Your task to perform on an android device: uninstall "Google Play Games" Image 0: 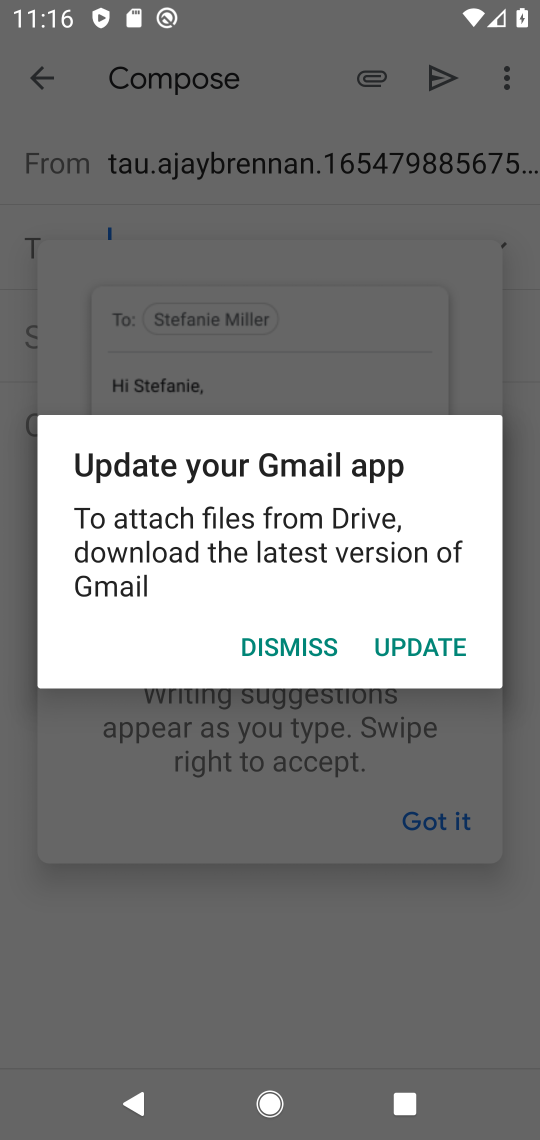
Step 0: click (260, 668)
Your task to perform on an android device: uninstall "Google Play Games" Image 1: 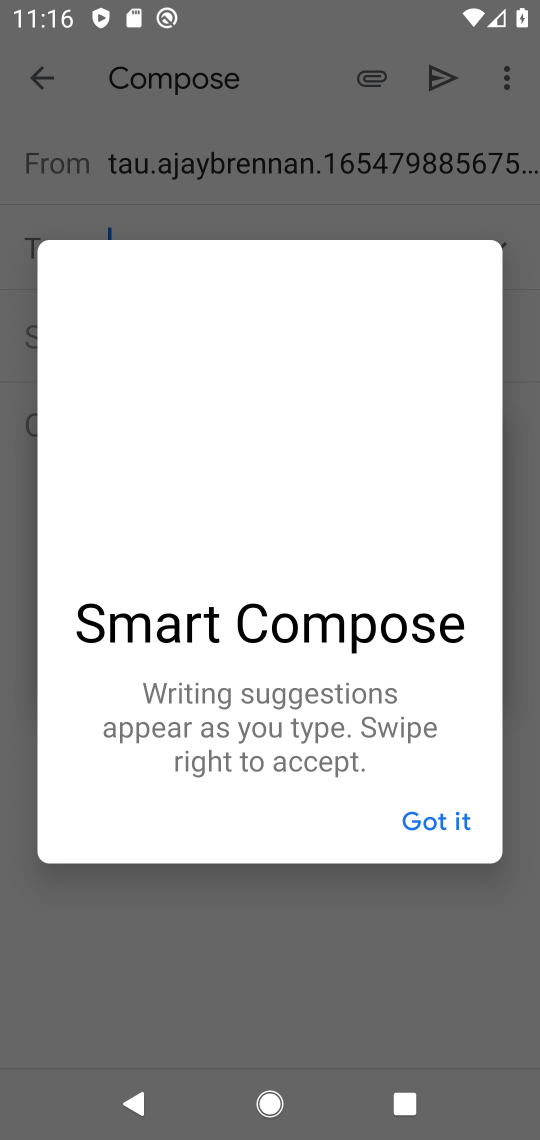
Step 1: click (436, 834)
Your task to perform on an android device: uninstall "Google Play Games" Image 2: 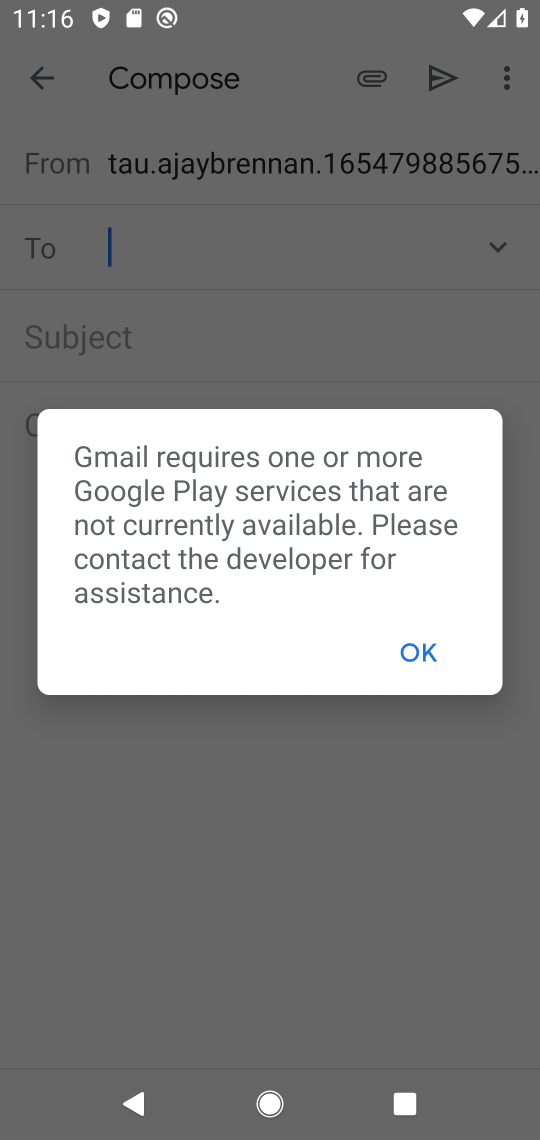
Step 2: press home button
Your task to perform on an android device: uninstall "Google Play Games" Image 3: 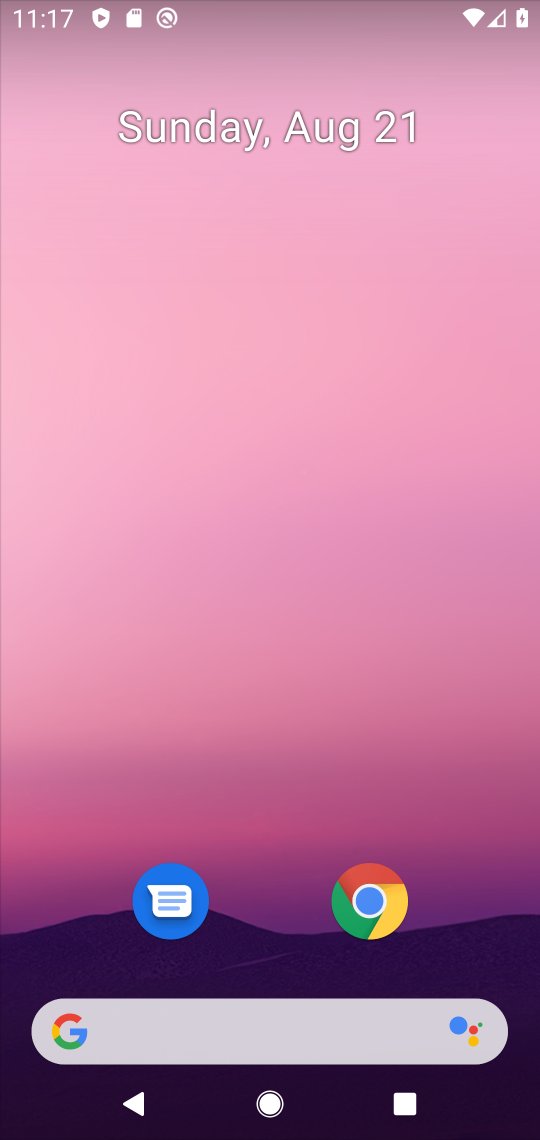
Step 3: drag from (278, 964) to (319, 139)
Your task to perform on an android device: uninstall "Google Play Games" Image 4: 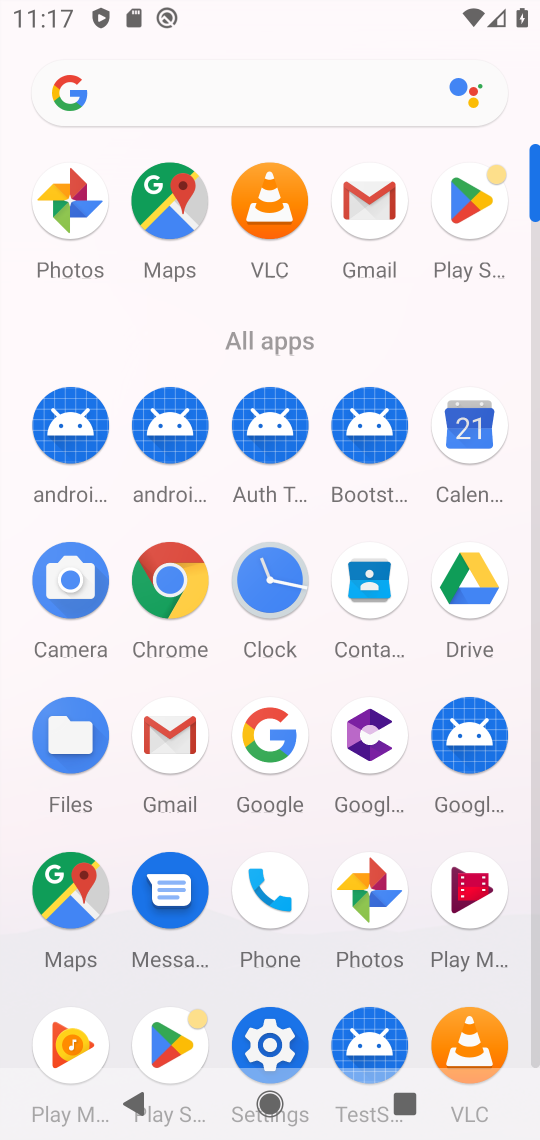
Step 4: click (455, 201)
Your task to perform on an android device: uninstall "Google Play Games" Image 5: 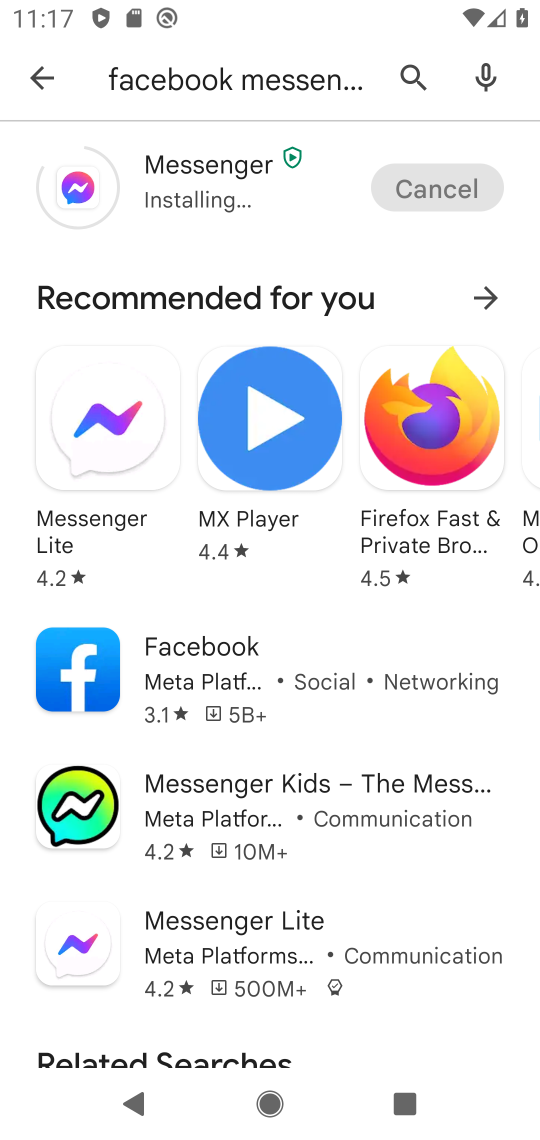
Step 5: click (399, 93)
Your task to perform on an android device: uninstall "Google Play Games" Image 6: 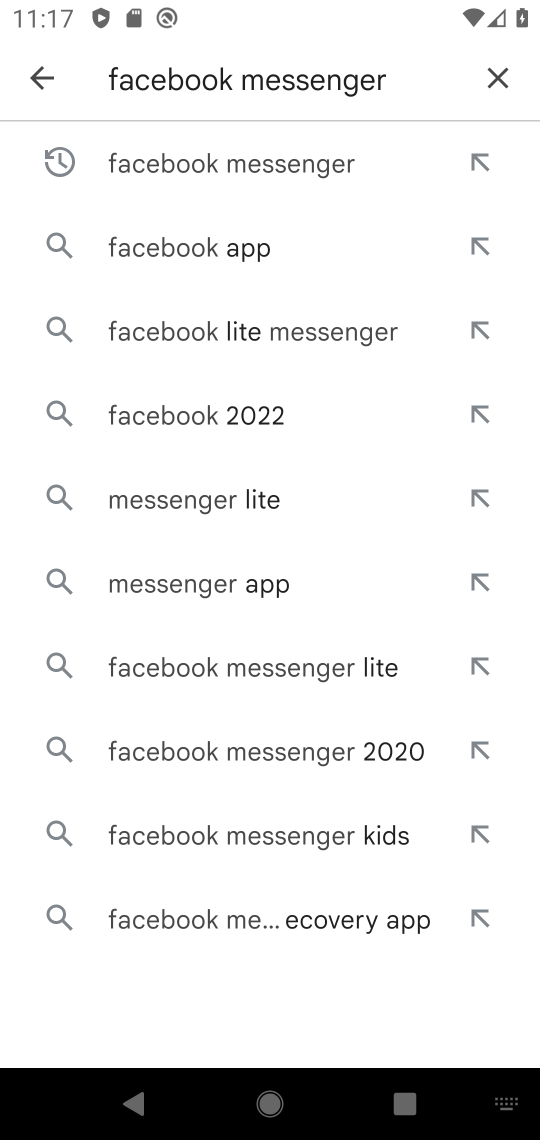
Step 6: click (482, 79)
Your task to perform on an android device: uninstall "Google Play Games" Image 7: 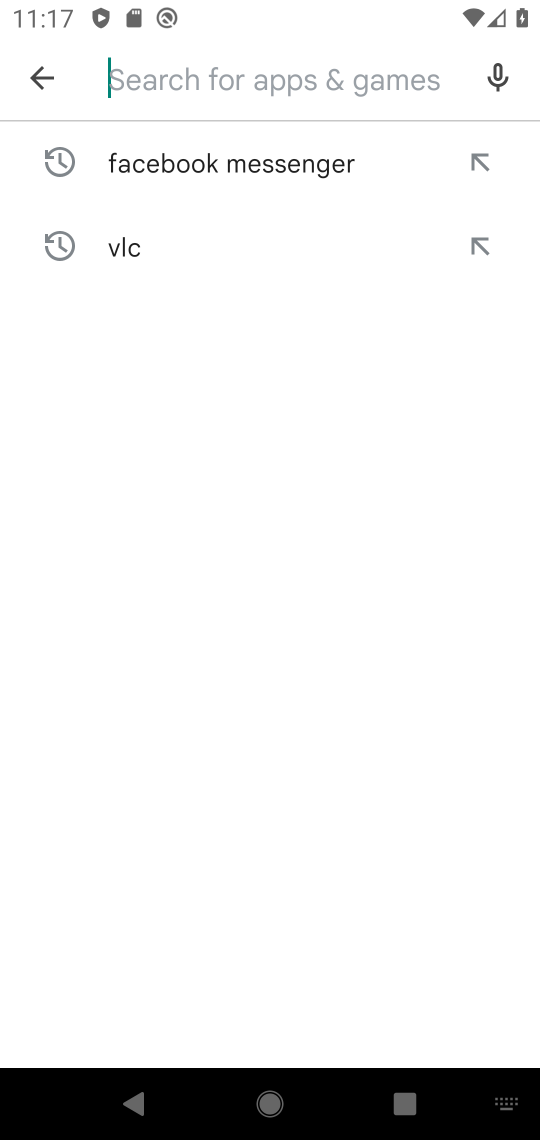
Step 7: type "goolge play"
Your task to perform on an android device: uninstall "Google Play Games" Image 8: 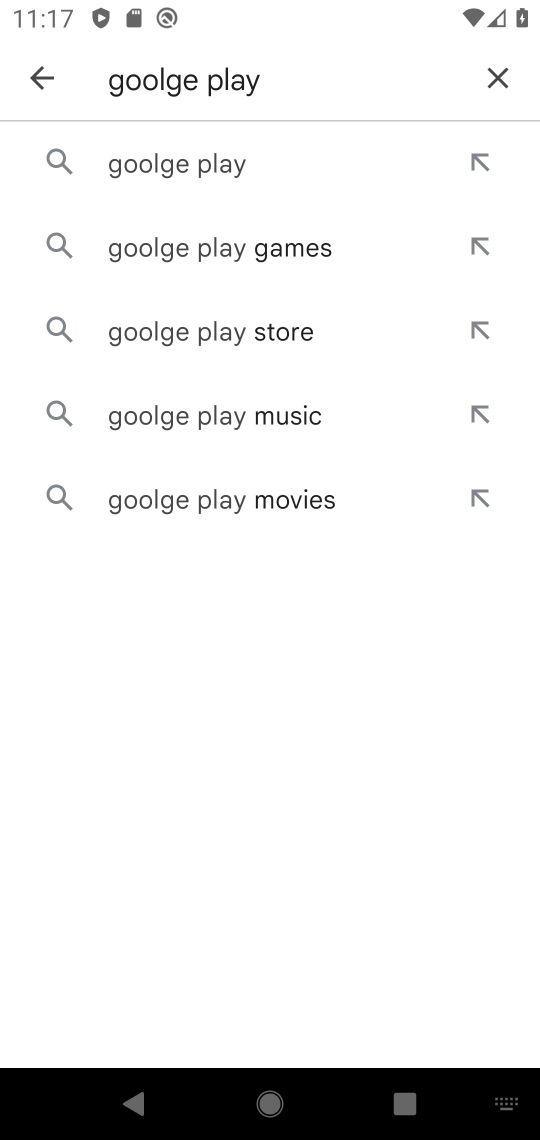
Step 8: click (214, 148)
Your task to perform on an android device: uninstall "Google Play Games" Image 9: 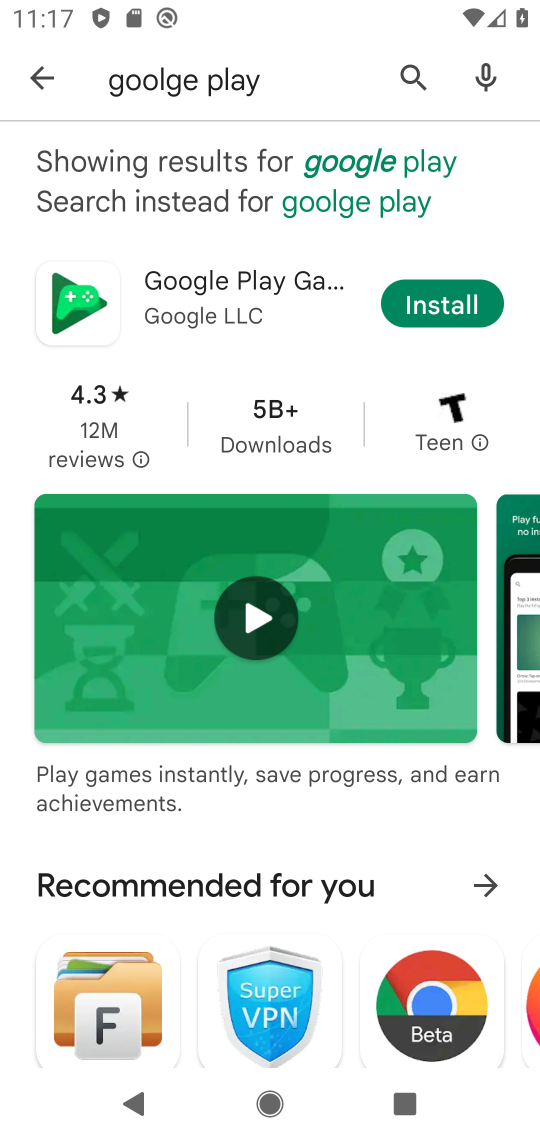
Step 9: click (431, 312)
Your task to perform on an android device: uninstall "Google Play Games" Image 10: 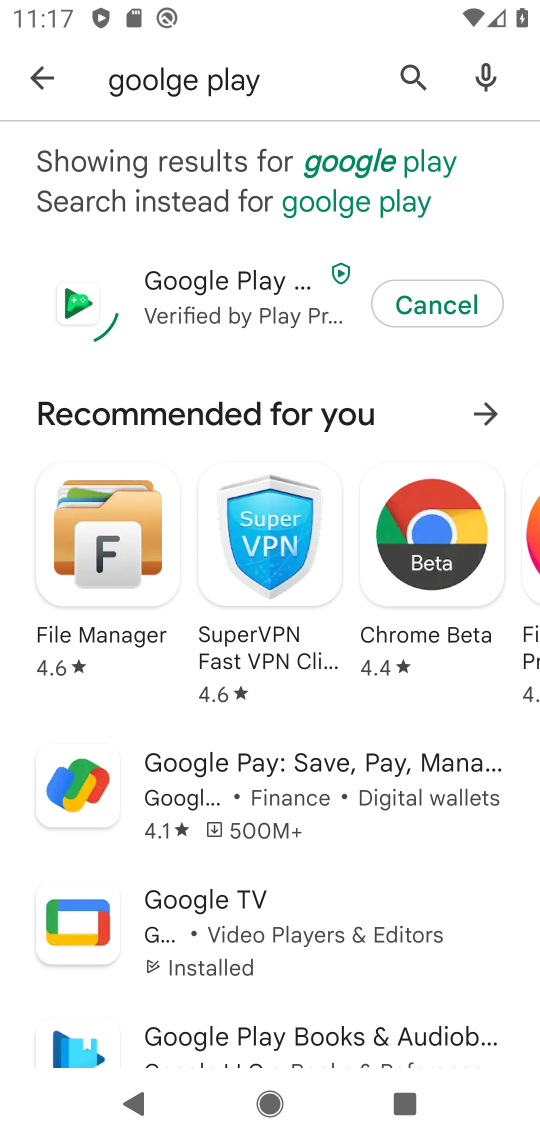
Step 10: task complete